Your task to perform on an android device: turn off picture-in-picture Image 0: 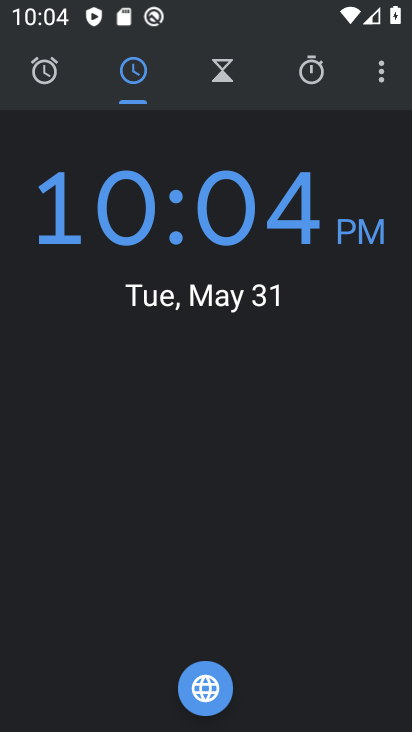
Step 0: press home button
Your task to perform on an android device: turn off picture-in-picture Image 1: 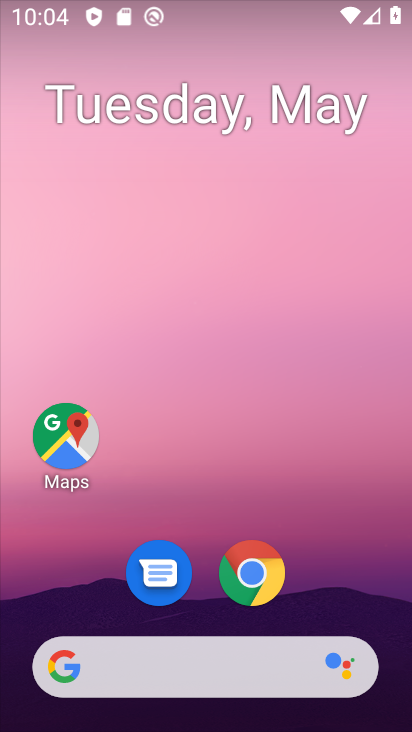
Step 1: click (268, 570)
Your task to perform on an android device: turn off picture-in-picture Image 2: 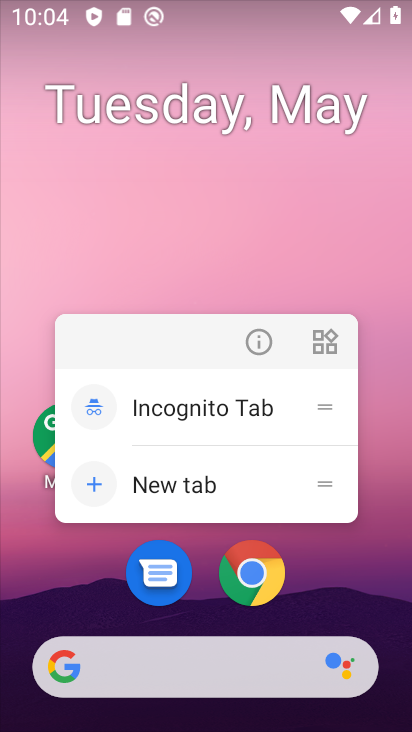
Step 2: click (255, 341)
Your task to perform on an android device: turn off picture-in-picture Image 3: 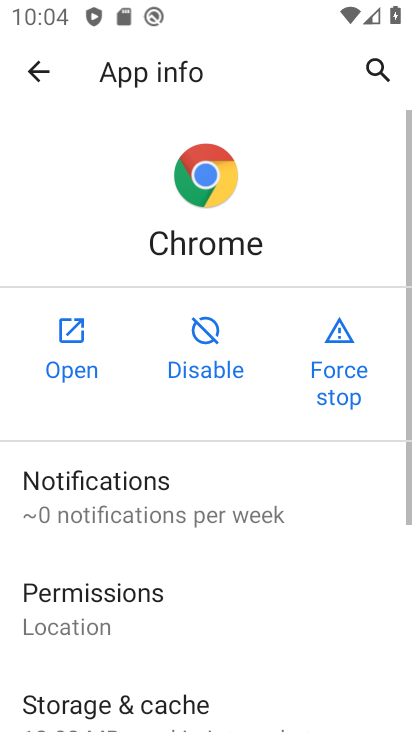
Step 3: drag from (265, 604) to (265, 233)
Your task to perform on an android device: turn off picture-in-picture Image 4: 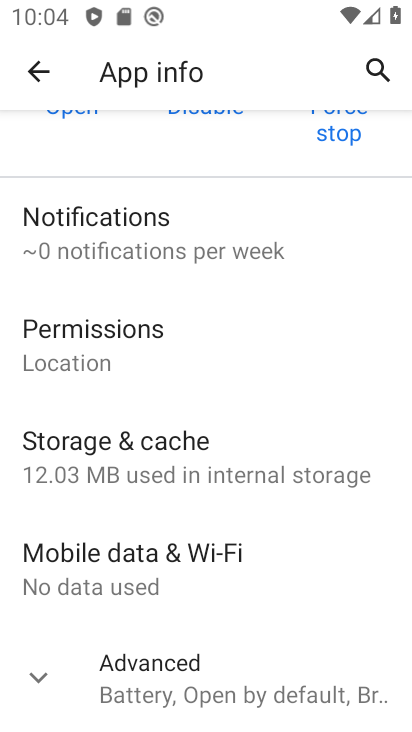
Step 4: click (154, 674)
Your task to perform on an android device: turn off picture-in-picture Image 5: 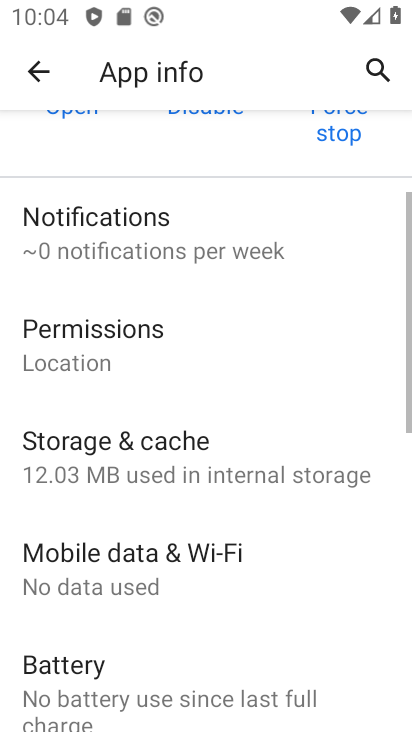
Step 5: drag from (271, 642) to (276, 145)
Your task to perform on an android device: turn off picture-in-picture Image 6: 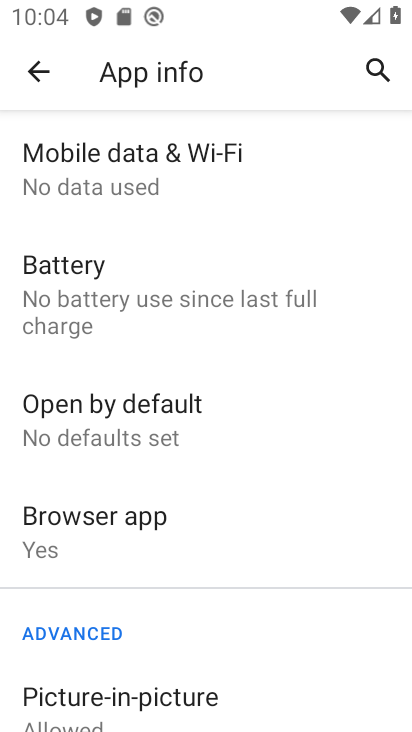
Step 6: click (86, 703)
Your task to perform on an android device: turn off picture-in-picture Image 7: 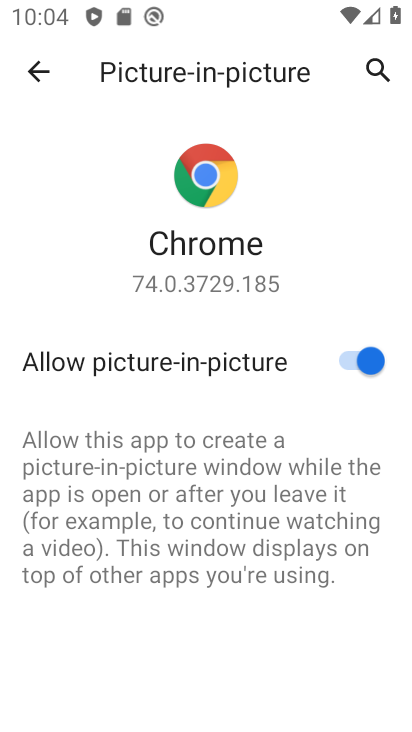
Step 7: click (346, 353)
Your task to perform on an android device: turn off picture-in-picture Image 8: 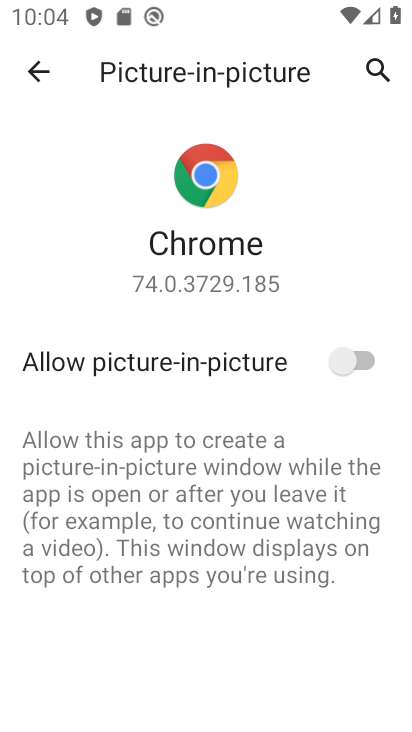
Step 8: task complete